Your task to perform on an android device: Open Yahoo.com Image 0: 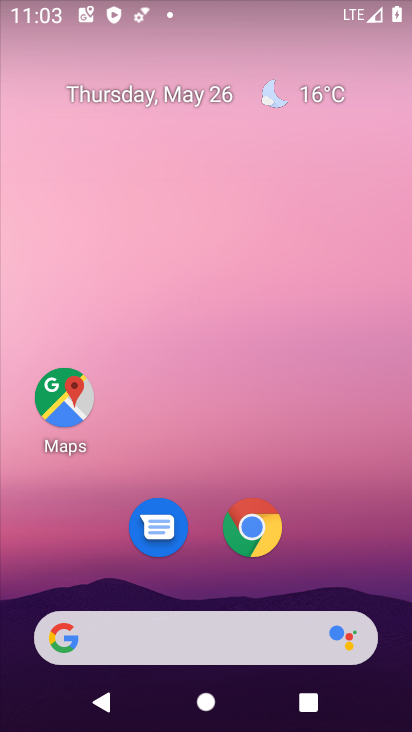
Step 0: click (235, 531)
Your task to perform on an android device: Open Yahoo.com Image 1: 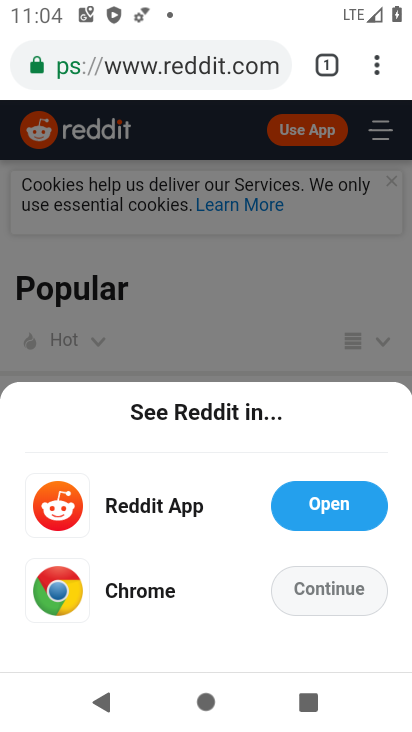
Step 1: click (186, 67)
Your task to perform on an android device: Open Yahoo.com Image 2: 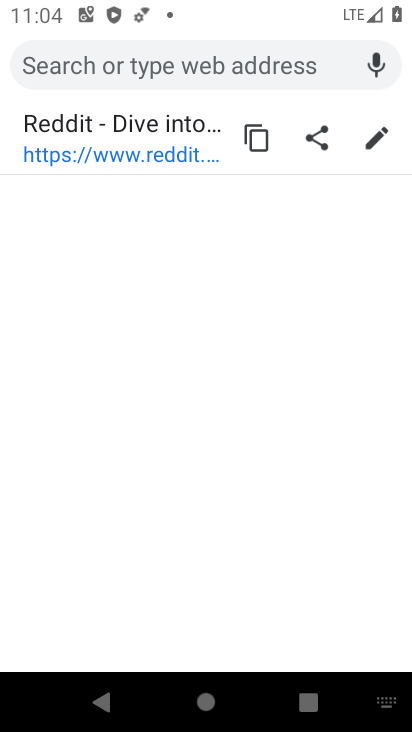
Step 2: type "Yahoo.com"
Your task to perform on an android device: Open Yahoo.com Image 3: 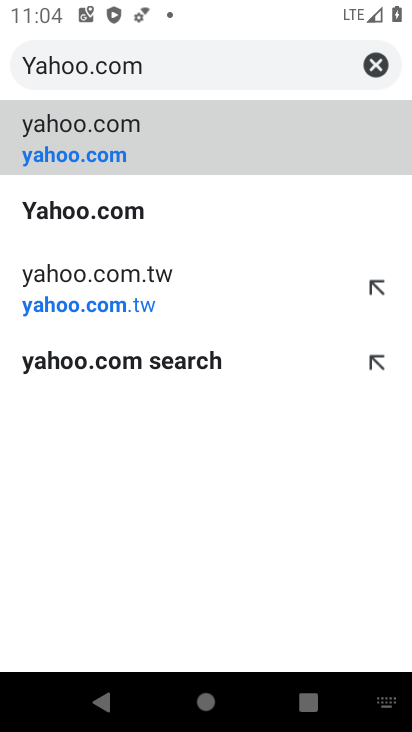
Step 3: click (36, 132)
Your task to perform on an android device: Open Yahoo.com Image 4: 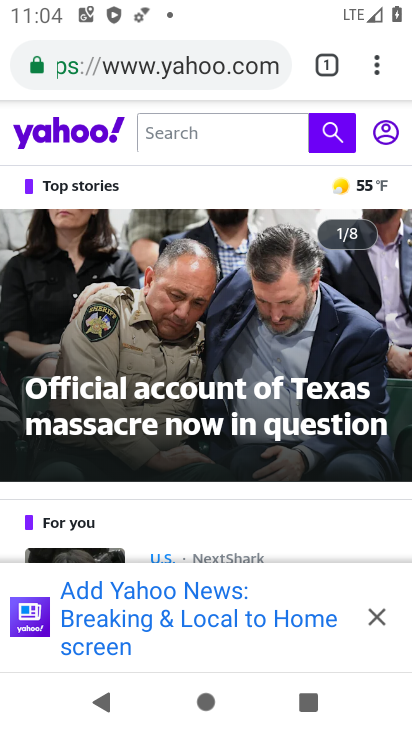
Step 4: task complete